Your task to perform on an android device: allow notifications from all sites in the chrome app Image 0: 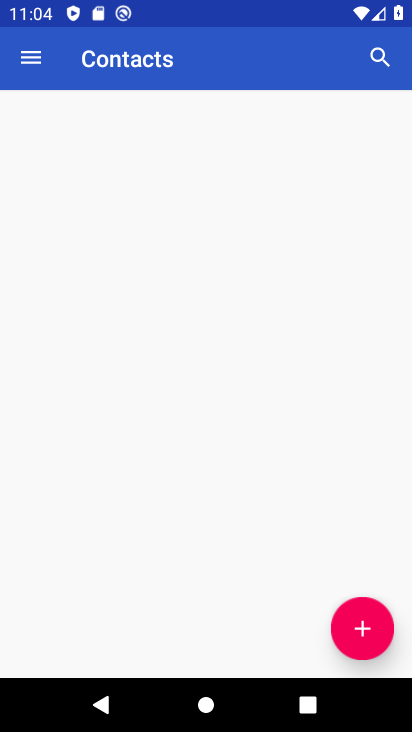
Step 0: press home button
Your task to perform on an android device: allow notifications from all sites in the chrome app Image 1: 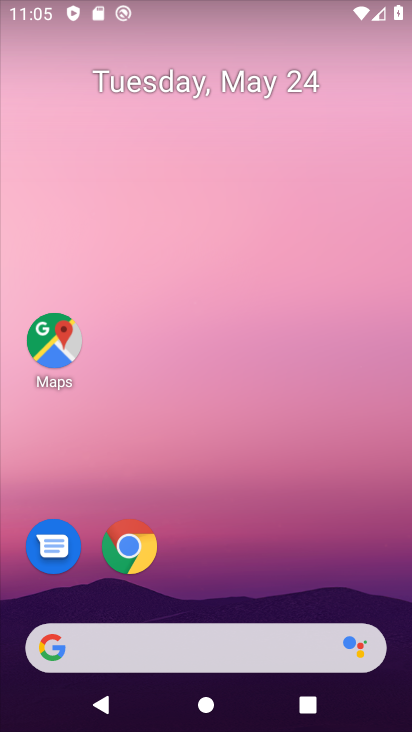
Step 1: drag from (271, 597) to (46, 1)
Your task to perform on an android device: allow notifications from all sites in the chrome app Image 2: 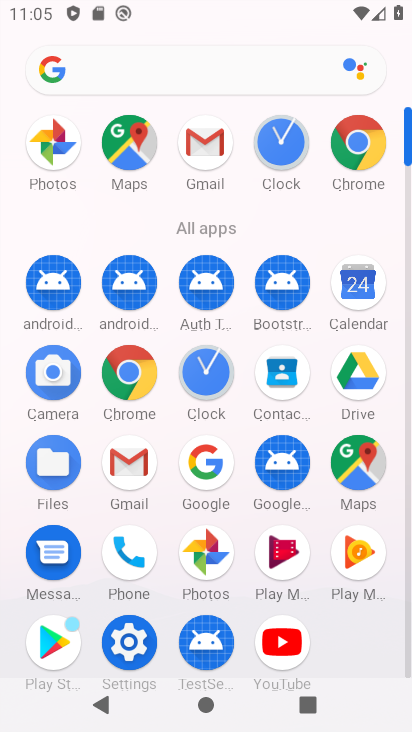
Step 2: click (362, 130)
Your task to perform on an android device: allow notifications from all sites in the chrome app Image 3: 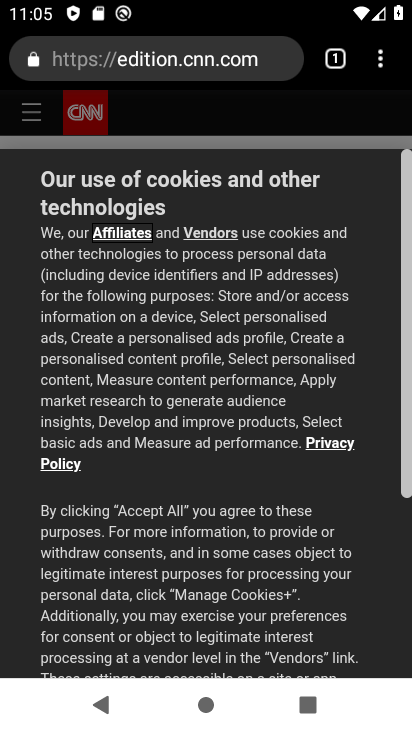
Step 3: click (392, 54)
Your task to perform on an android device: allow notifications from all sites in the chrome app Image 4: 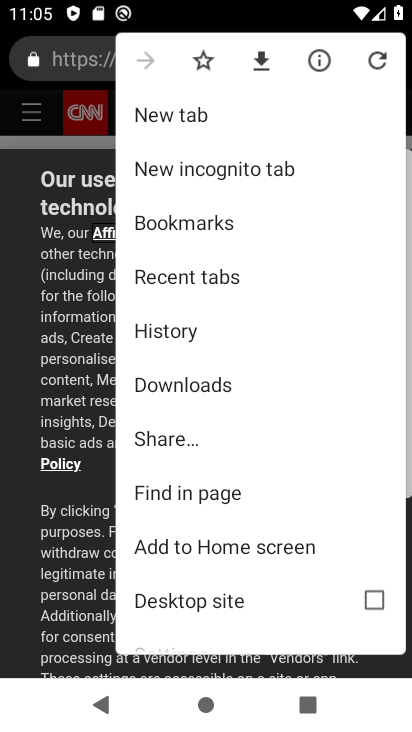
Step 4: drag from (220, 580) to (191, 73)
Your task to perform on an android device: allow notifications from all sites in the chrome app Image 5: 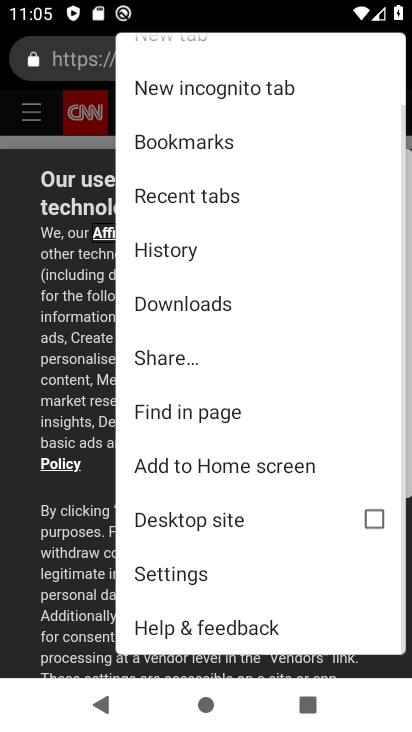
Step 5: click (210, 583)
Your task to perform on an android device: allow notifications from all sites in the chrome app Image 6: 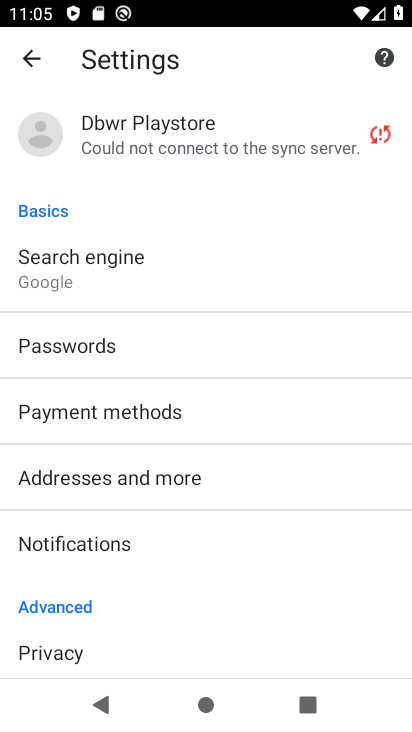
Step 6: drag from (213, 638) to (161, 274)
Your task to perform on an android device: allow notifications from all sites in the chrome app Image 7: 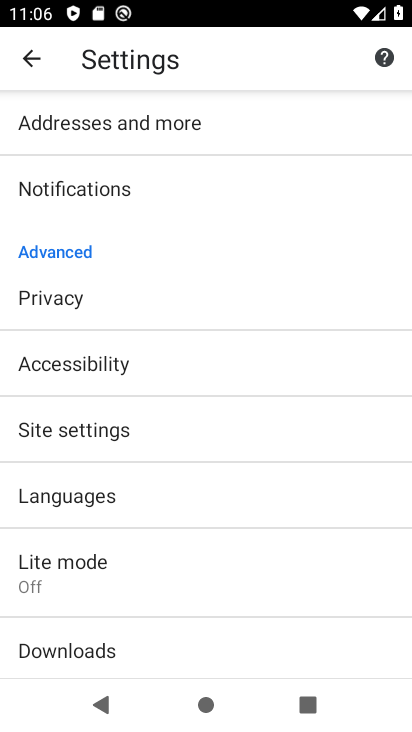
Step 7: click (140, 452)
Your task to perform on an android device: allow notifications from all sites in the chrome app Image 8: 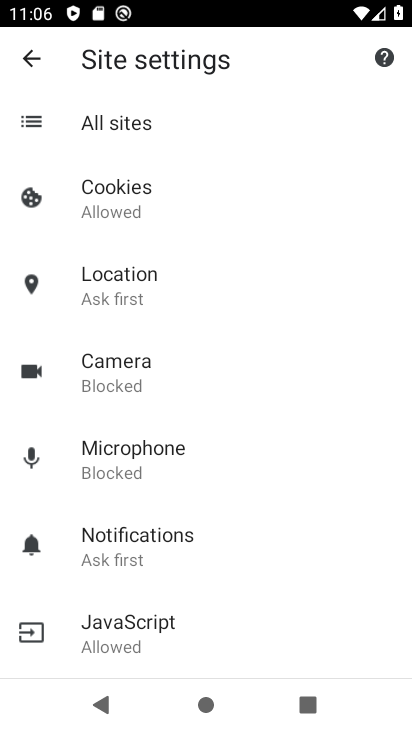
Step 8: click (181, 541)
Your task to perform on an android device: allow notifications from all sites in the chrome app Image 9: 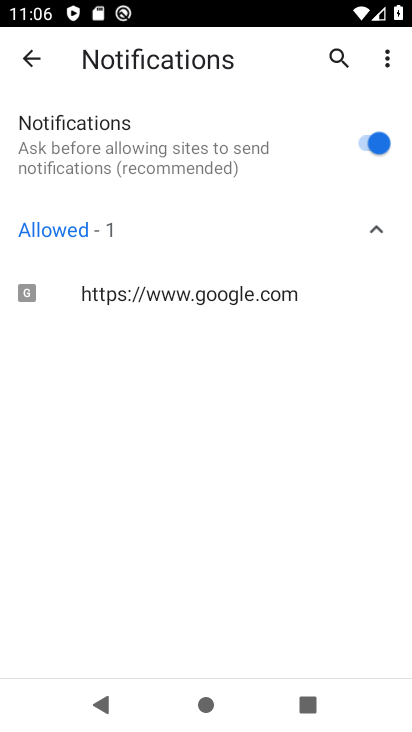
Step 9: task complete